Your task to perform on an android device: turn on translation in the chrome app Image 0: 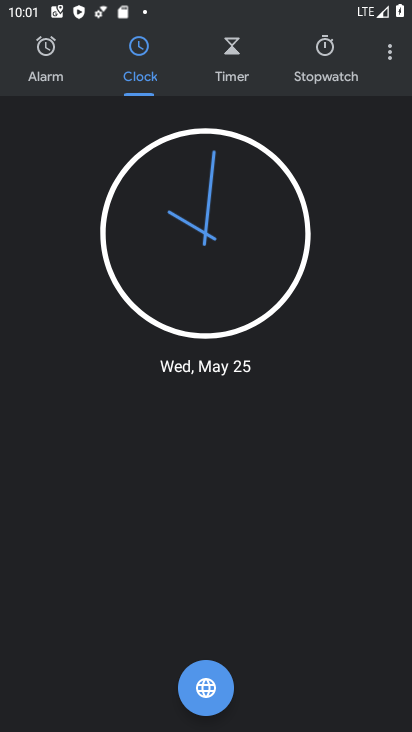
Step 0: press home button
Your task to perform on an android device: turn on translation in the chrome app Image 1: 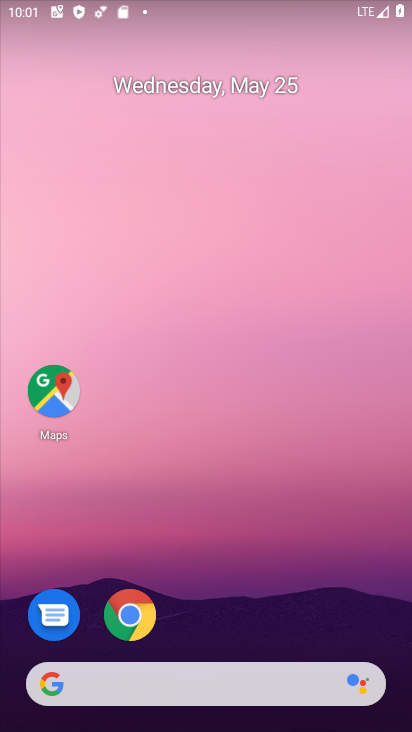
Step 1: click (129, 619)
Your task to perform on an android device: turn on translation in the chrome app Image 2: 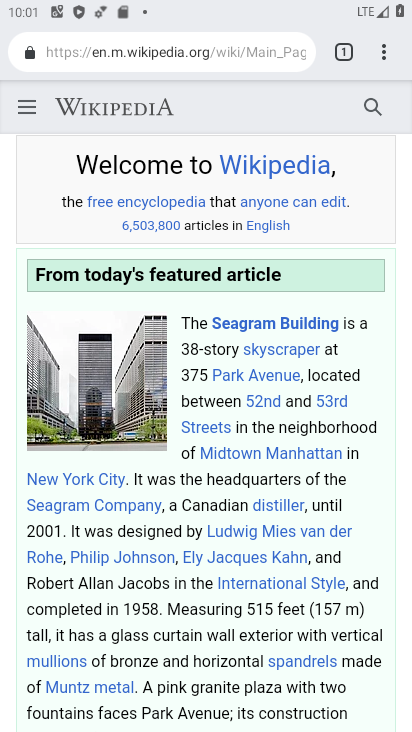
Step 2: click (383, 47)
Your task to perform on an android device: turn on translation in the chrome app Image 3: 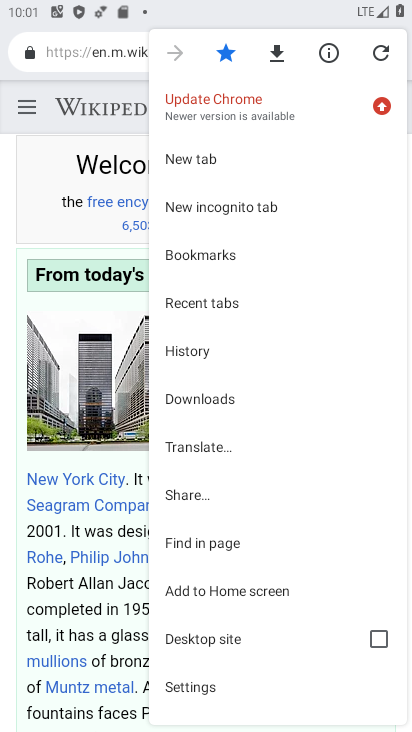
Step 3: click (243, 687)
Your task to perform on an android device: turn on translation in the chrome app Image 4: 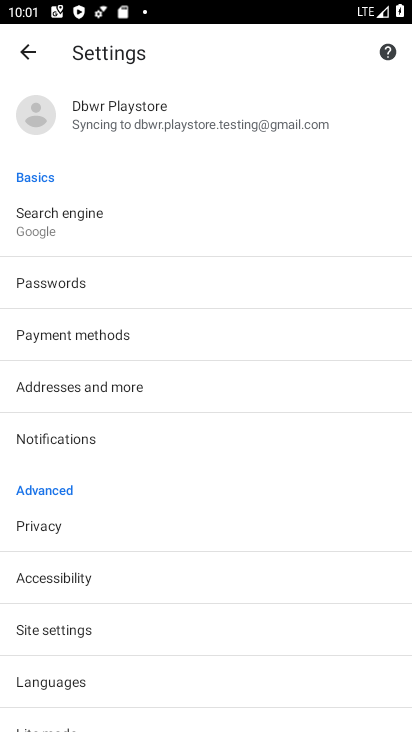
Step 4: click (243, 687)
Your task to perform on an android device: turn on translation in the chrome app Image 5: 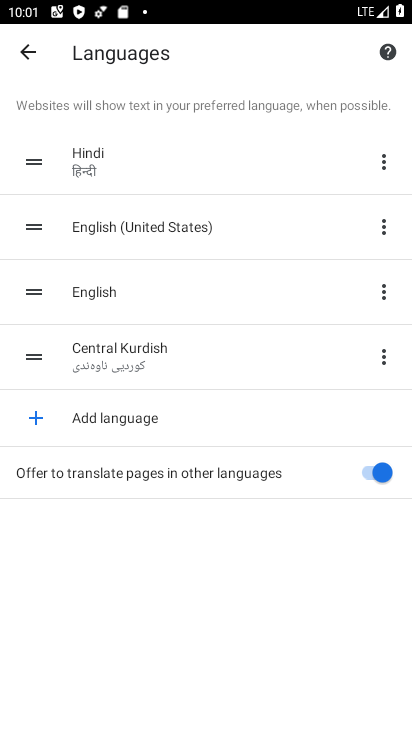
Step 5: task complete